Your task to perform on an android device: check google app version Image 0: 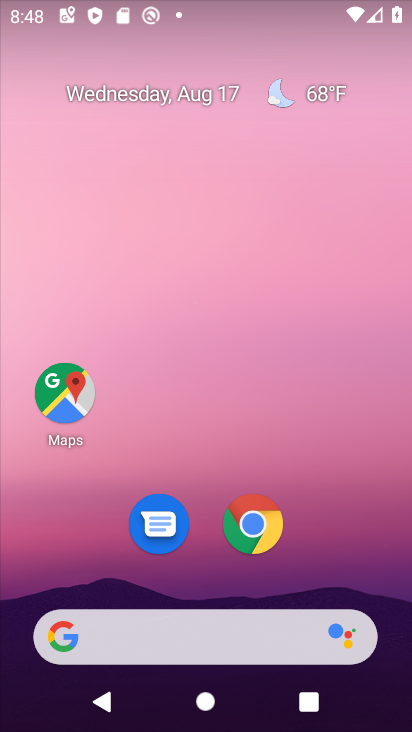
Step 0: click (169, 626)
Your task to perform on an android device: check google app version Image 1: 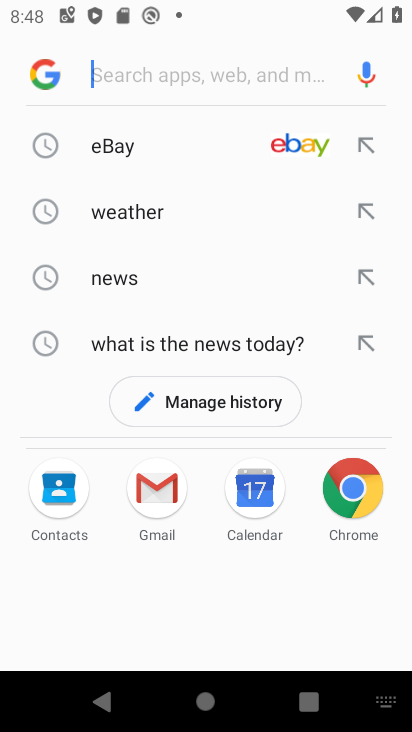
Step 1: click (49, 75)
Your task to perform on an android device: check google app version Image 2: 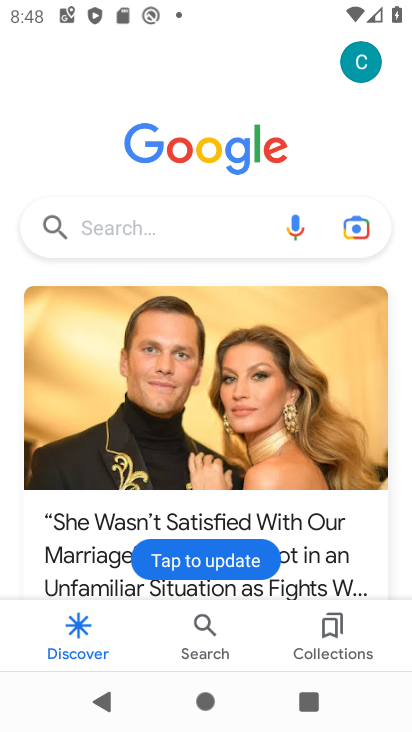
Step 2: click (359, 69)
Your task to perform on an android device: check google app version Image 3: 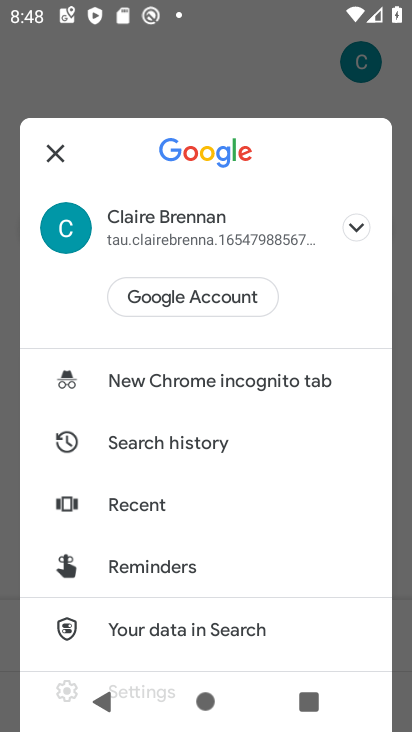
Step 3: drag from (273, 533) to (285, 136)
Your task to perform on an android device: check google app version Image 4: 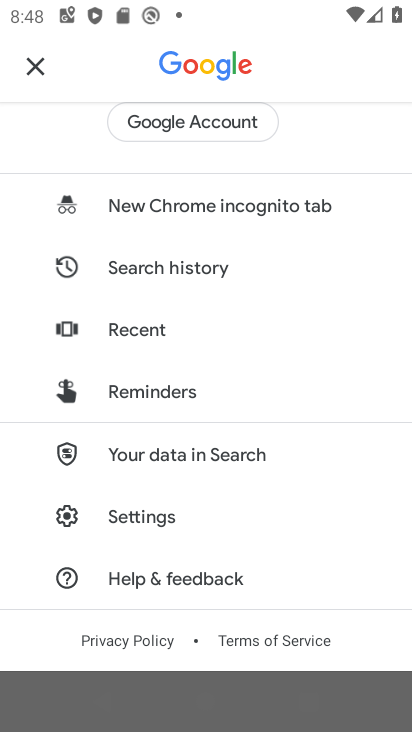
Step 4: click (159, 523)
Your task to perform on an android device: check google app version Image 5: 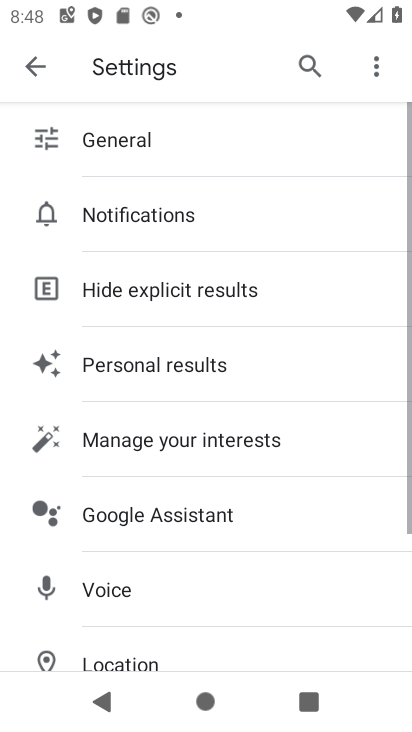
Step 5: drag from (293, 564) to (279, 187)
Your task to perform on an android device: check google app version Image 6: 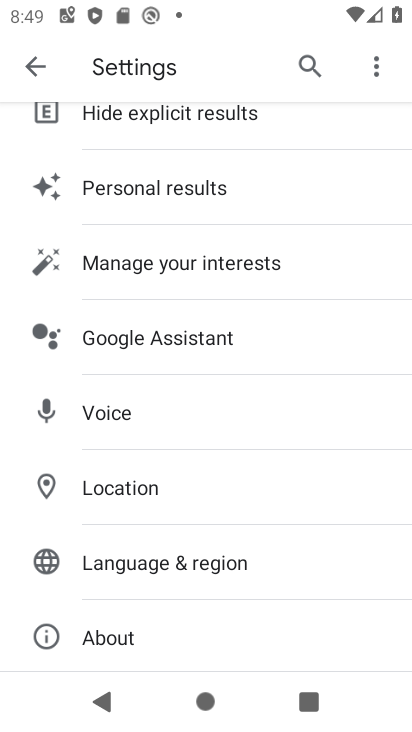
Step 6: click (129, 631)
Your task to perform on an android device: check google app version Image 7: 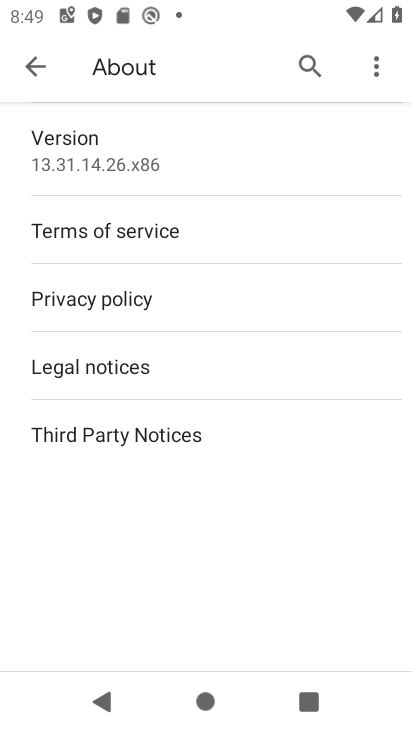
Step 7: task complete